Your task to perform on an android device: open app "Pandora - Music & Podcasts" Image 0: 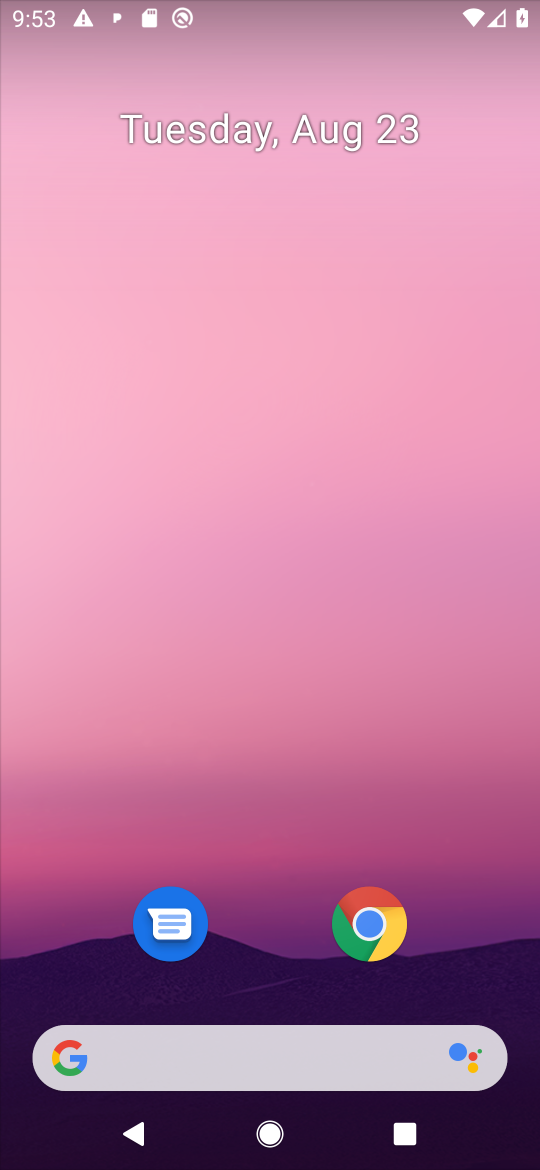
Step 0: press home button
Your task to perform on an android device: open app "Pandora - Music & Podcasts" Image 1: 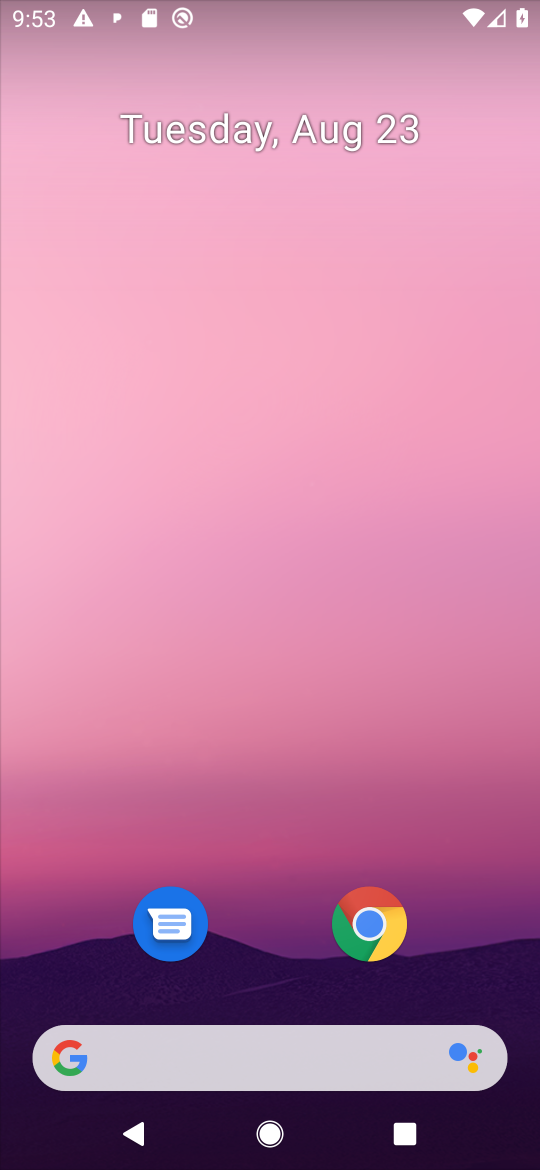
Step 1: drag from (476, 981) to (467, 91)
Your task to perform on an android device: open app "Pandora - Music & Podcasts" Image 2: 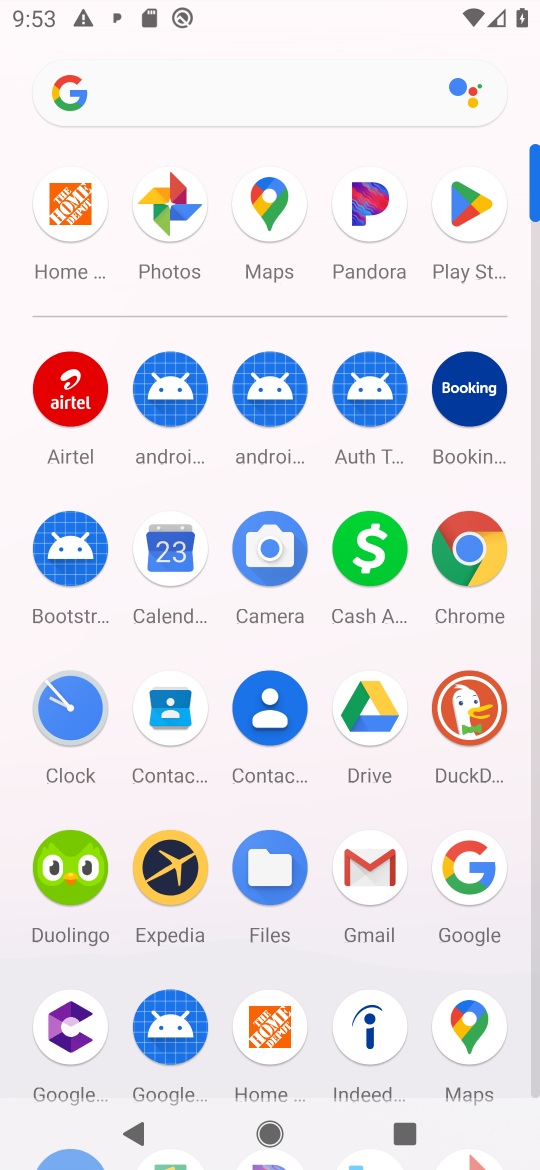
Step 2: click (471, 207)
Your task to perform on an android device: open app "Pandora - Music & Podcasts" Image 3: 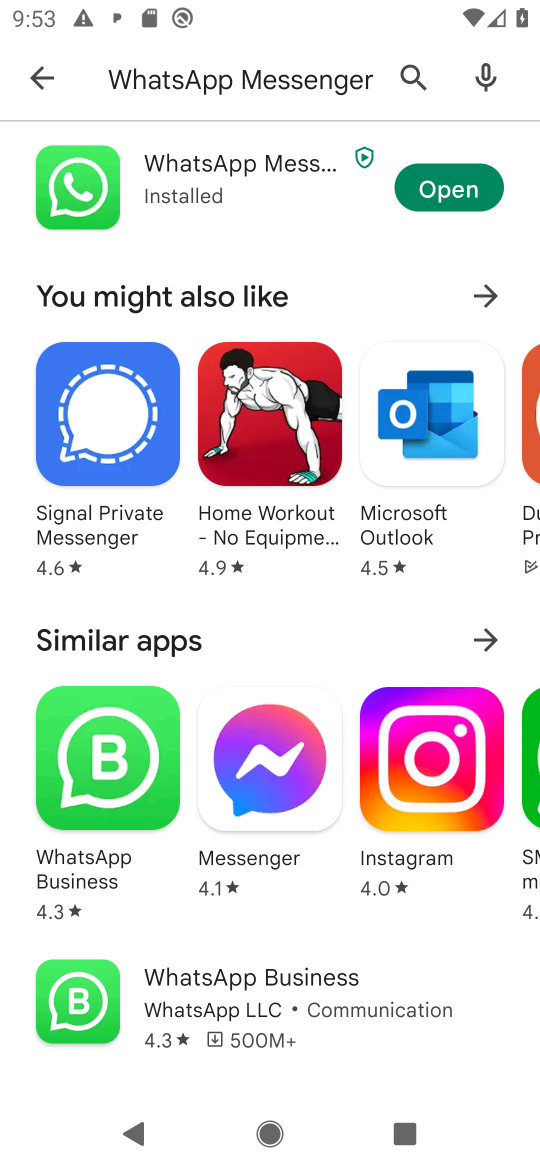
Step 3: press back button
Your task to perform on an android device: open app "Pandora - Music & Podcasts" Image 4: 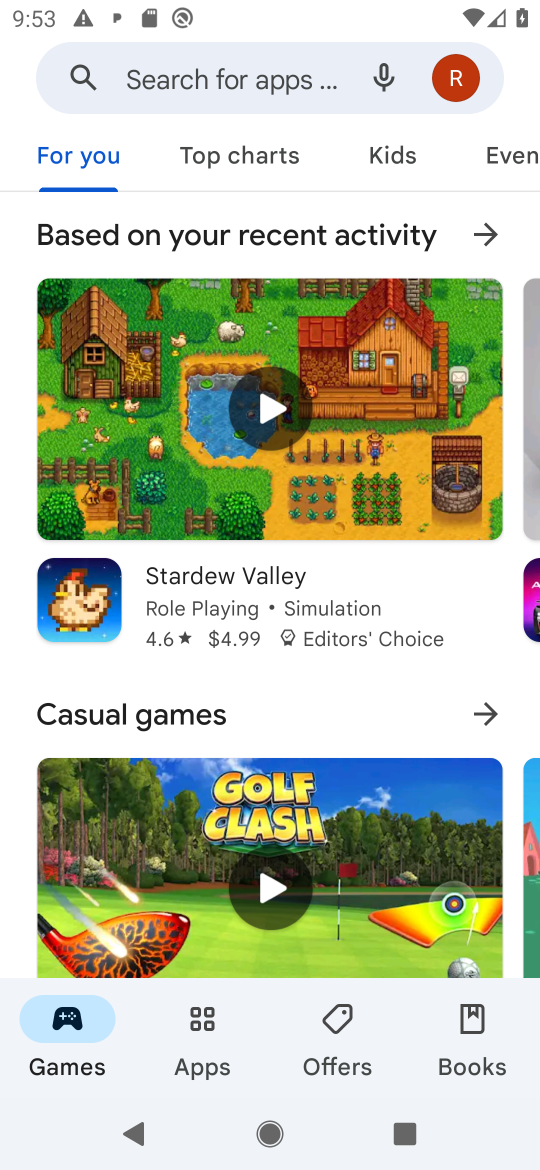
Step 4: click (201, 74)
Your task to perform on an android device: open app "Pandora - Music & Podcasts" Image 5: 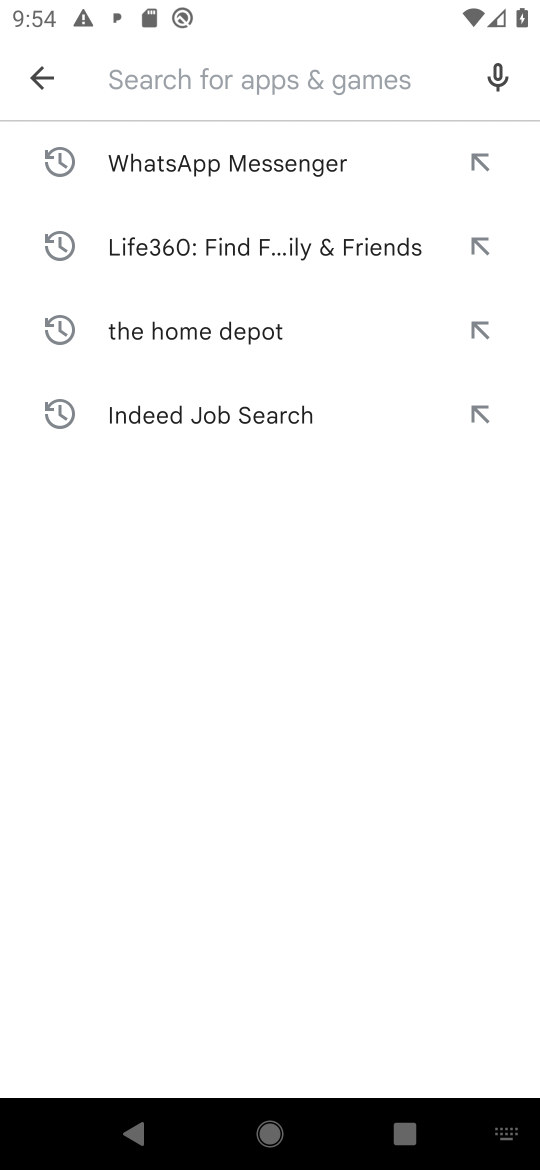
Step 5: press enter
Your task to perform on an android device: open app "Pandora - Music & Podcasts" Image 6: 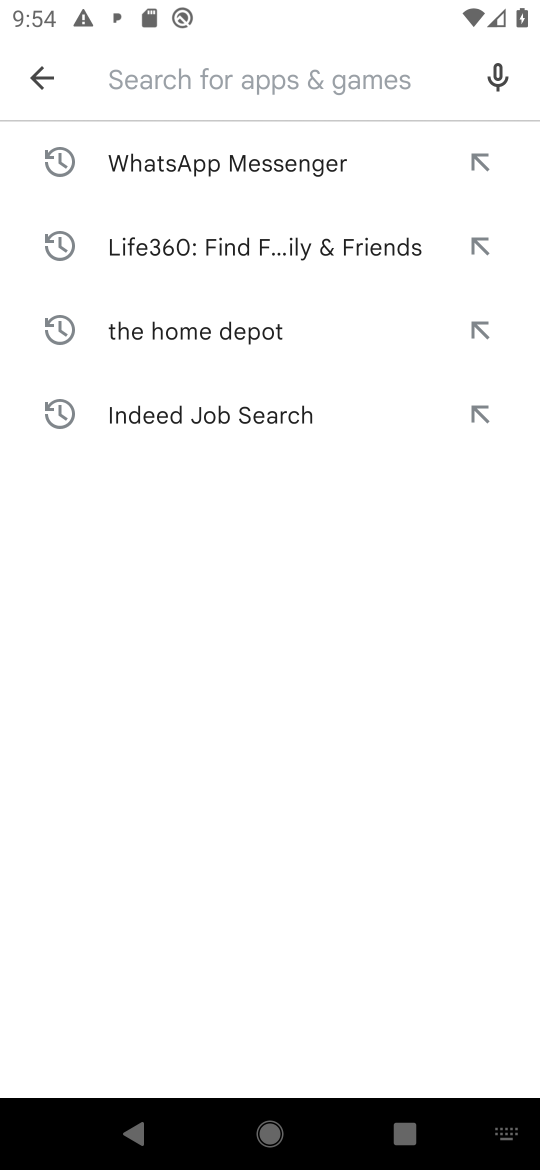
Step 6: type "Pandora - Music & Podcasts"
Your task to perform on an android device: open app "Pandora - Music & Podcasts" Image 7: 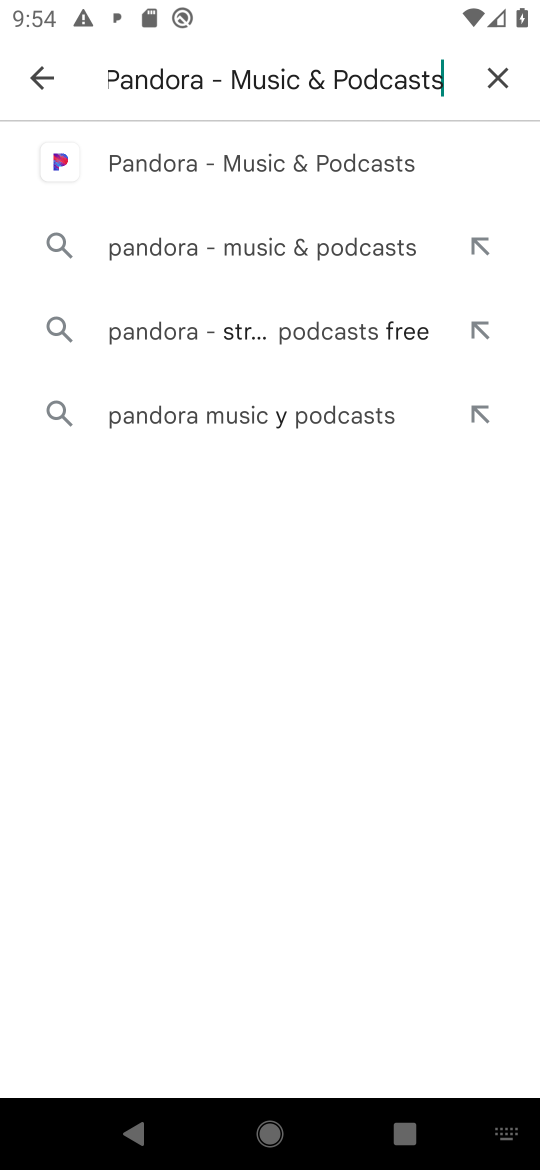
Step 7: click (295, 164)
Your task to perform on an android device: open app "Pandora - Music & Podcasts" Image 8: 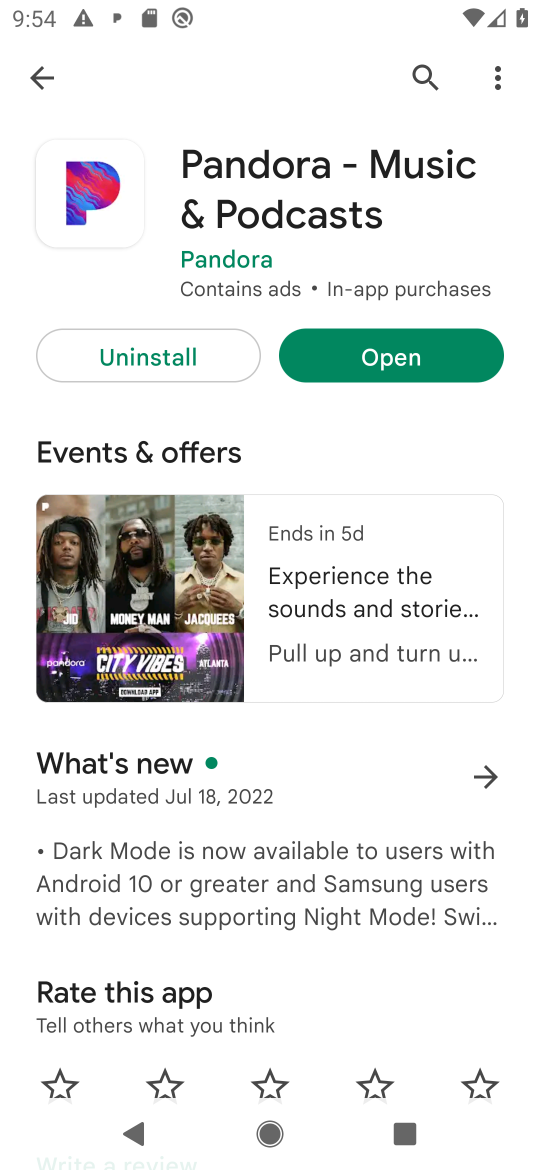
Step 8: click (398, 357)
Your task to perform on an android device: open app "Pandora - Music & Podcasts" Image 9: 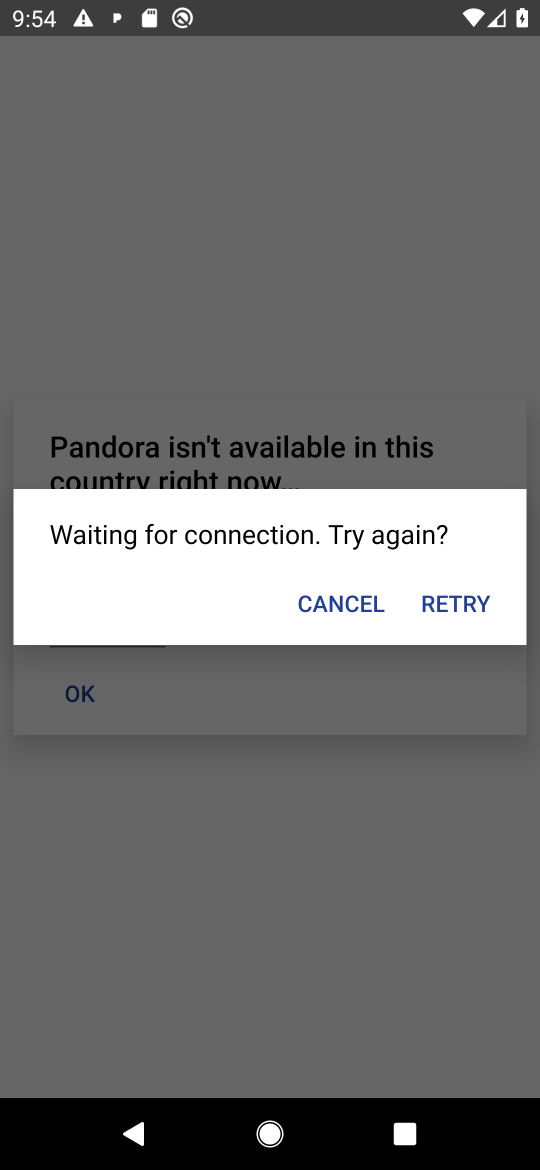
Step 9: task complete